Your task to perform on an android device: turn off wifi Image 0: 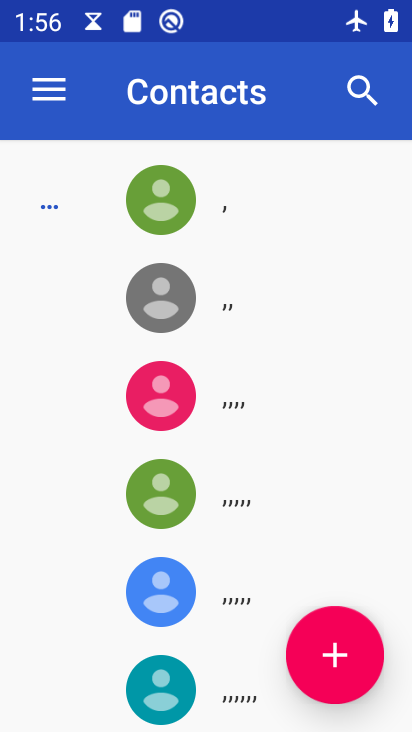
Step 0: press home button
Your task to perform on an android device: turn off wifi Image 1: 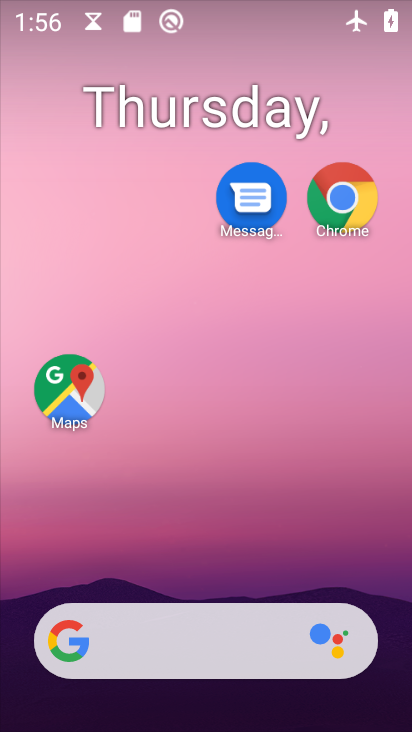
Step 1: click (291, 12)
Your task to perform on an android device: turn off wifi Image 2: 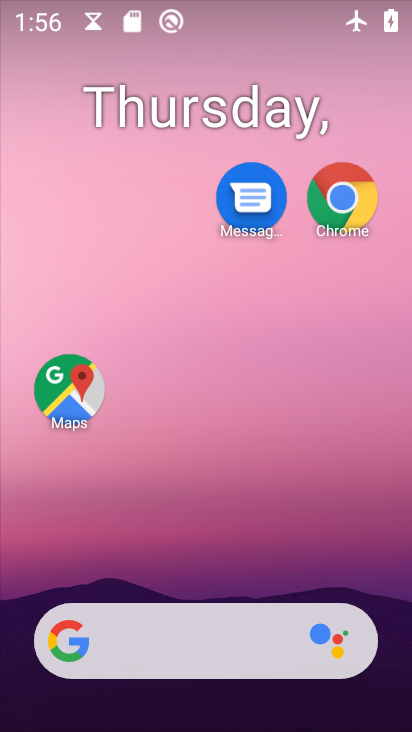
Step 2: drag from (206, 321) to (266, 6)
Your task to perform on an android device: turn off wifi Image 3: 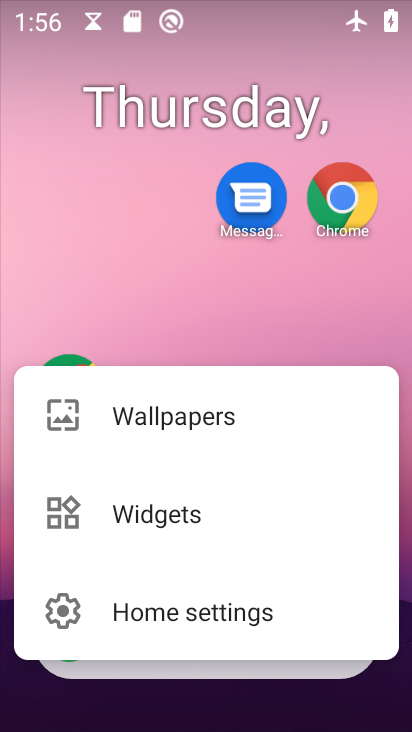
Step 3: click (245, 345)
Your task to perform on an android device: turn off wifi Image 4: 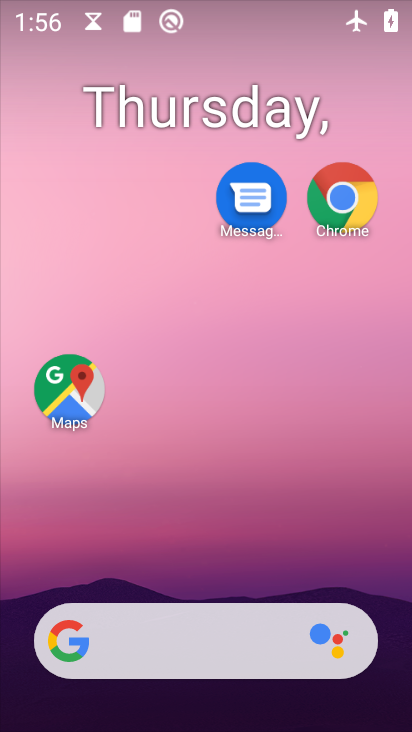
Step 4: click (246, 10)
Your task to perform on an android device: turn off wifi Image 5: 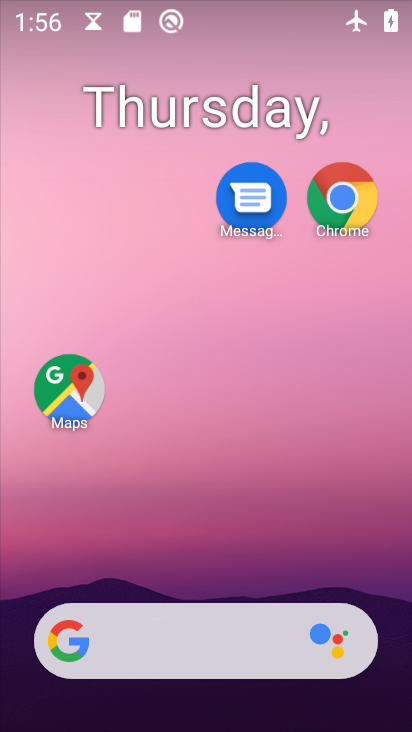
Step 5: drag from (220, 421) to (282, 17)
Your task to perform on an android device: turn off wifi Image 6: 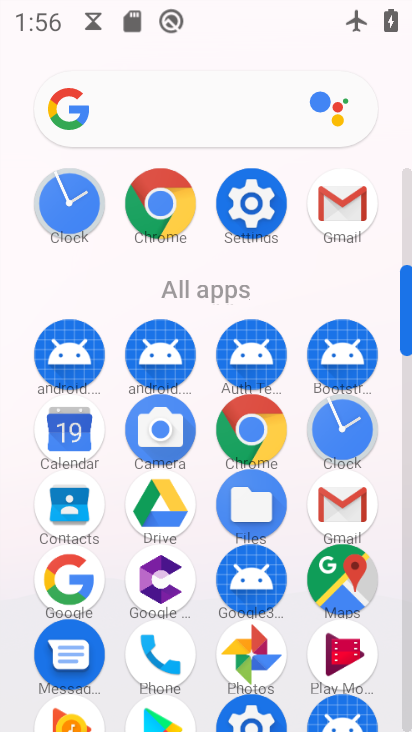
Step 6: click (253, 213)
Your task to perform on an android device: turn off wifi Image 7: 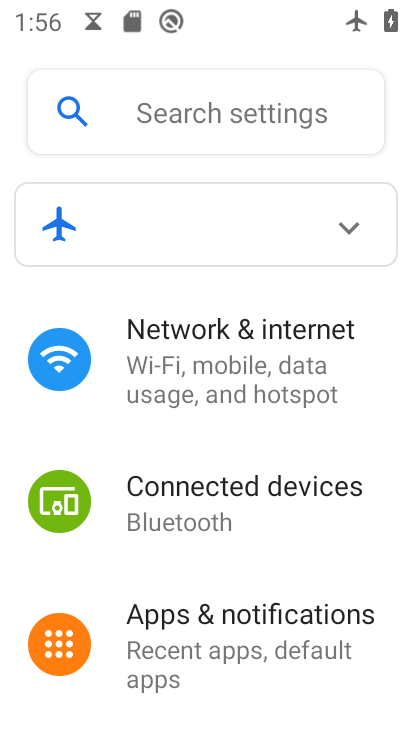
Step 7: click (234, 361)
Your task to perform on an android device: turn off wifi Image 8: 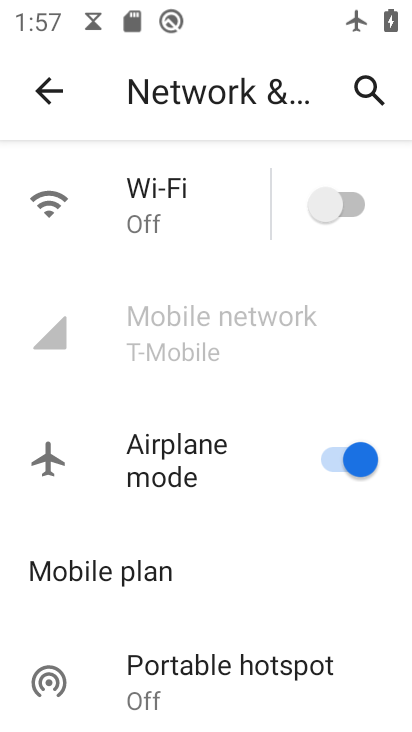
Step 8: task complete